Your task to perform on an android device: Open Google Image 0: 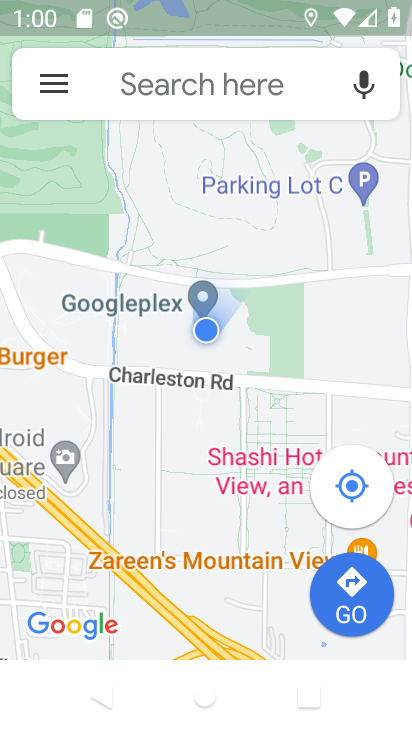
Step 0: drag from (226, 583) to (225, 406)
Your task to perform on an android device: Open Google Image 1: 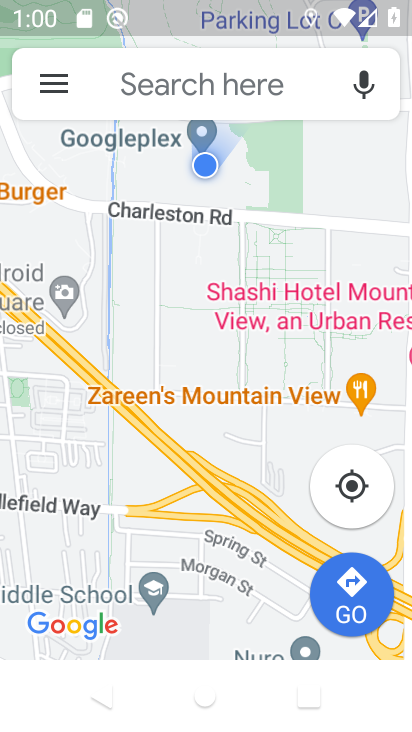
Step 1: task complete